Your task to perform on an android device: toggle location history Image 0: 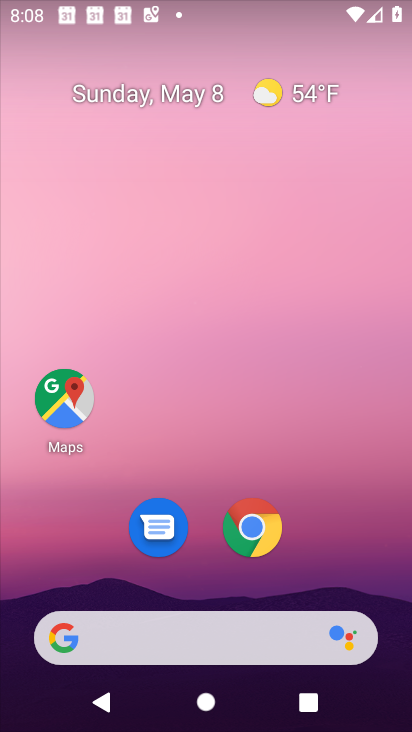
Step 0: drag from (325, 576) to (329, 46)
Your task to perform on an android device: toggle location history Image 1: 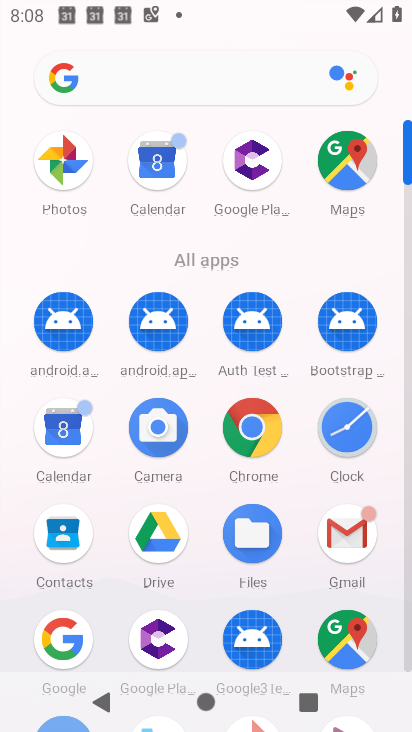
Step 1: drag from (297, 619) to (272, 386)
Your task to perform on an android device: toggle location history Image 2: 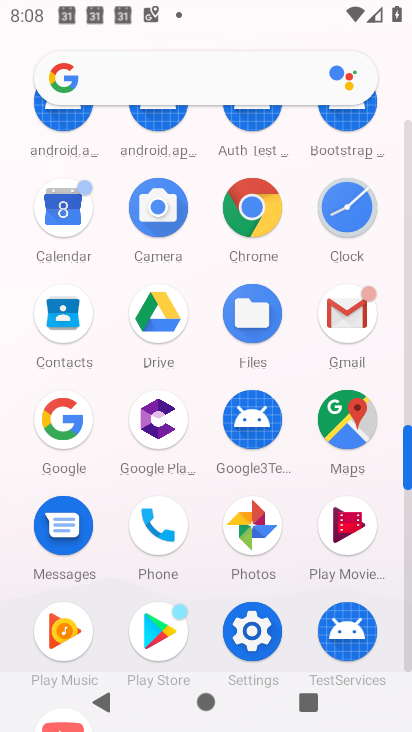
Step 2: click (242, 642)
Your task to perform on an android device: toggle location history Image 3: 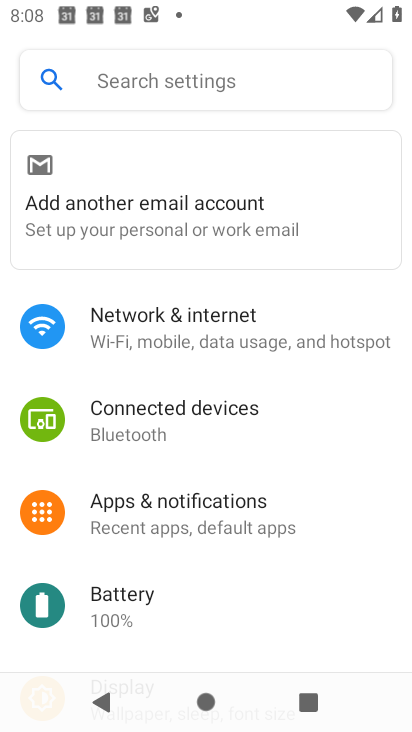
Step 3: drag from (196, 615) to (192, 458)
Your task to perform on an android device: toggle location history Image 4: 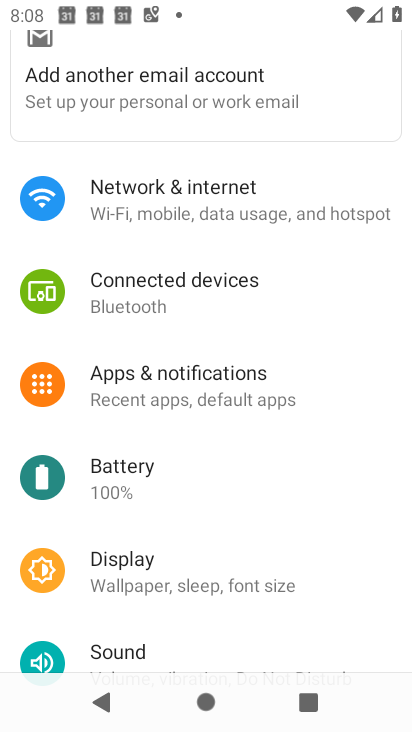
Step 4: drag from (176, 594) to (158, 386)
Your task to perform on an android device: toggle location history Image 5: 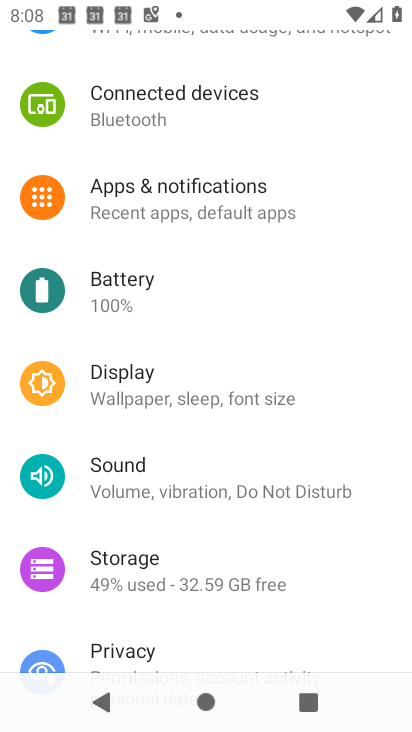
Step 5: drag from (161, 595) to (137, 445)
Your task to perform on an android device: toggle location history Image 6: 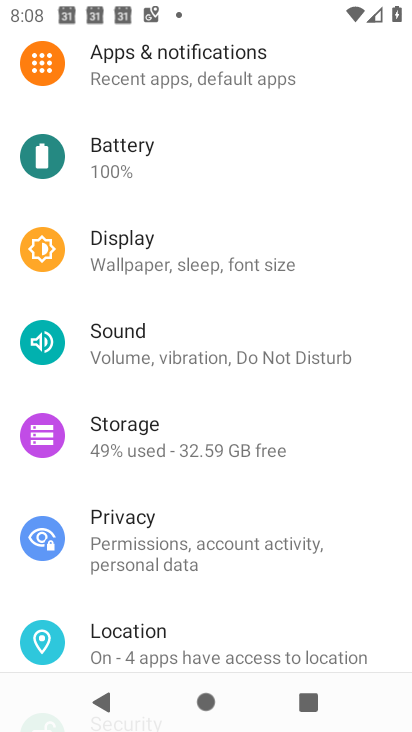
Step 6: click (185, 648)
Your task to perform on an android device: toggle location history Image 7: 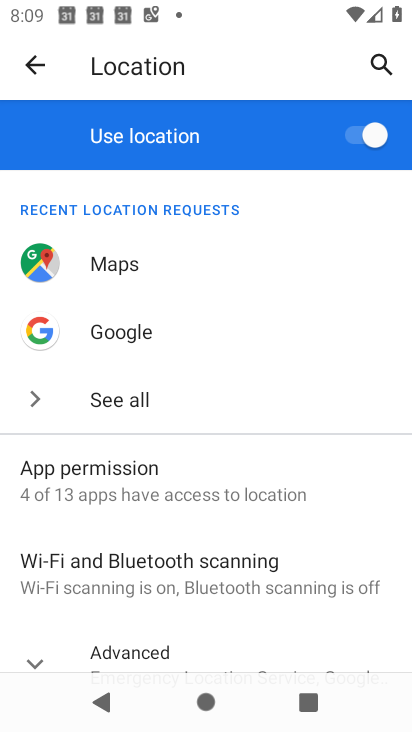
Step 7: drag from (161, 639) to (161, 362)
Your task to perform on an android device: toggle location history Image 8: 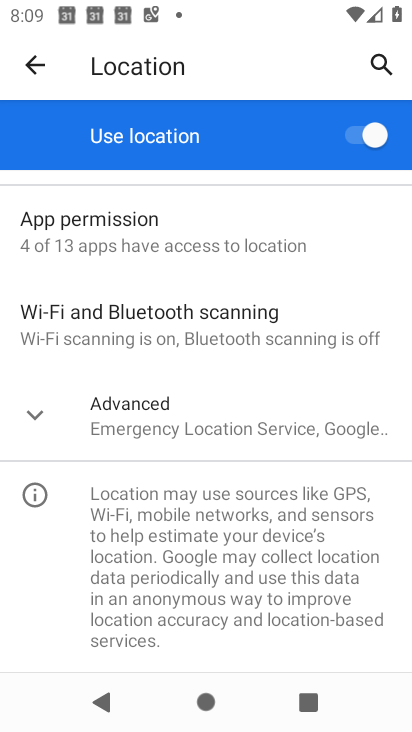
Step 8: click (188, 414)
Your task to perform on an android device: toggle location history Image 9: 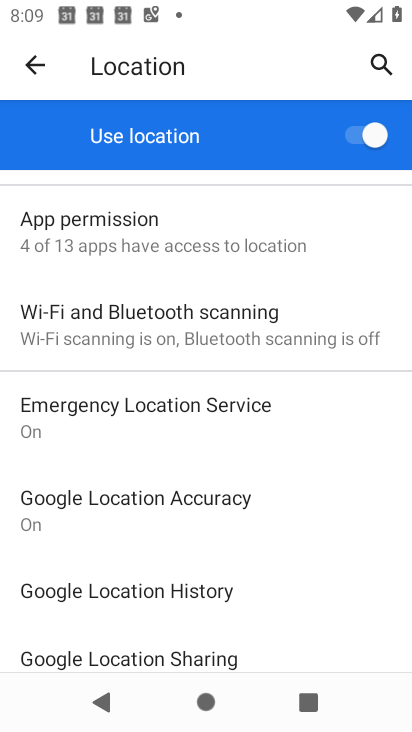
Step 9: click (212, 584)
Your task to perform on an android device: toggle location history Image 10: 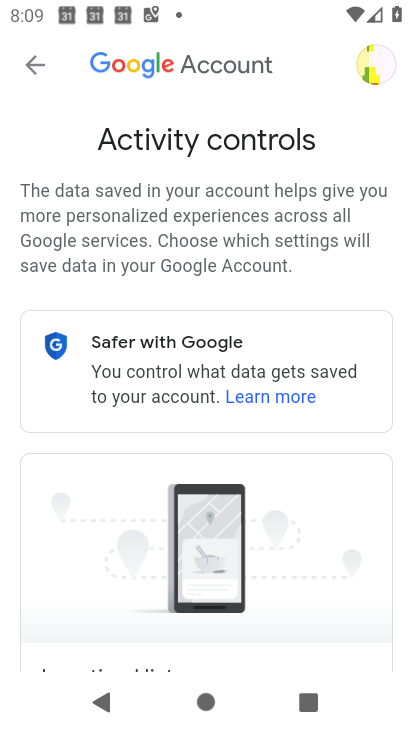
Step 10: drag from (201, 535) to (183, 244)
Your task to perform on an android device: toggle location history Image 11: 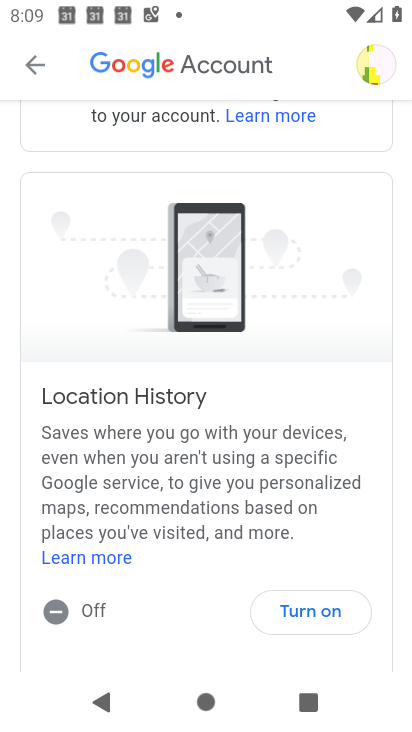
Step 11: click (299, 609)
Your task to perform on an android device: toggle location history Image 12: 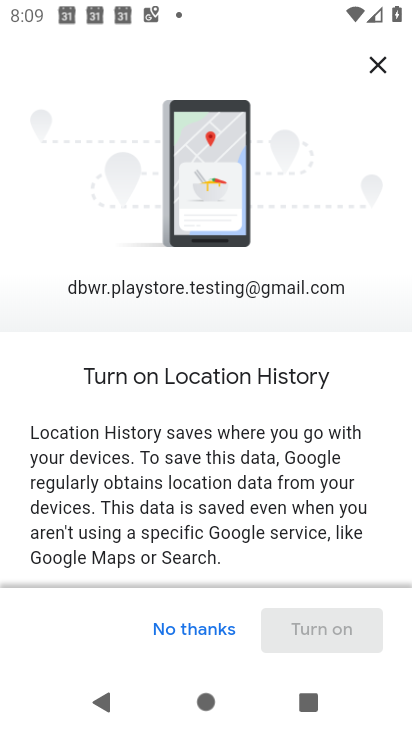
Step 12: drag from (284, 564) to (259, 354)
Your task to perform on an android device: toggle location history Image 13: 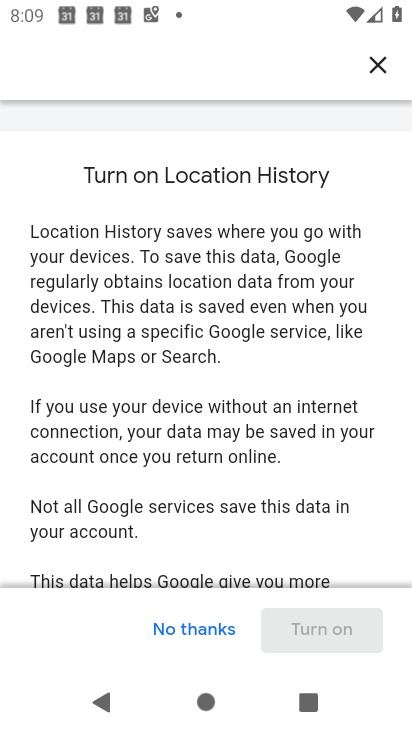
Step 13: drag from (258, 543) to (221, 266)
Your task to perform on an android device: toggle location history Image 14: 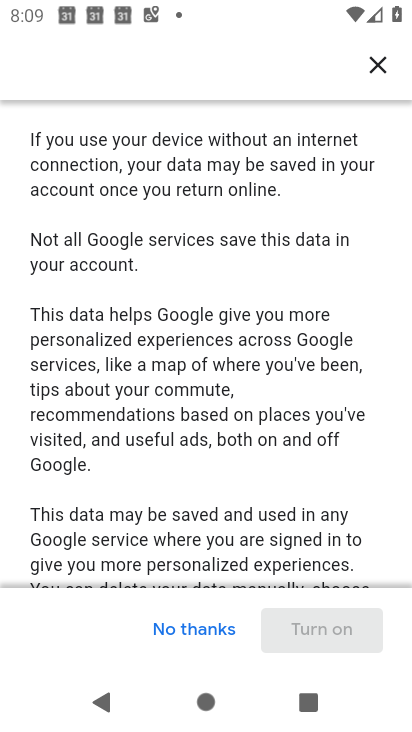
Step 14: drag from (278, 549) to (243, 339)
Your task to perform on an android device: toggle location history Image 15: 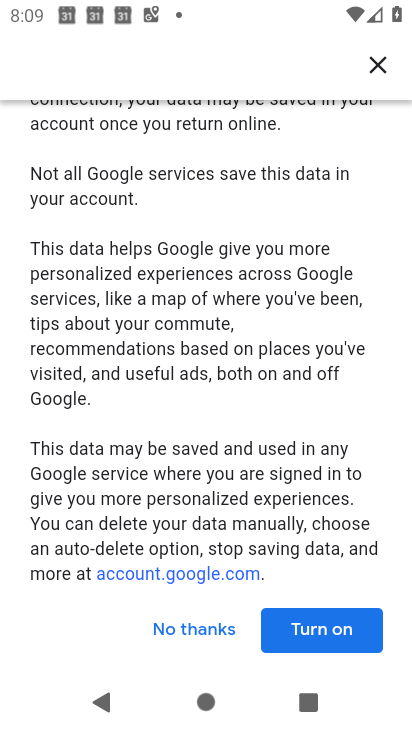
Step 15: click (317, 621)
Your task to perform on an android device: toggle location history Image 16: 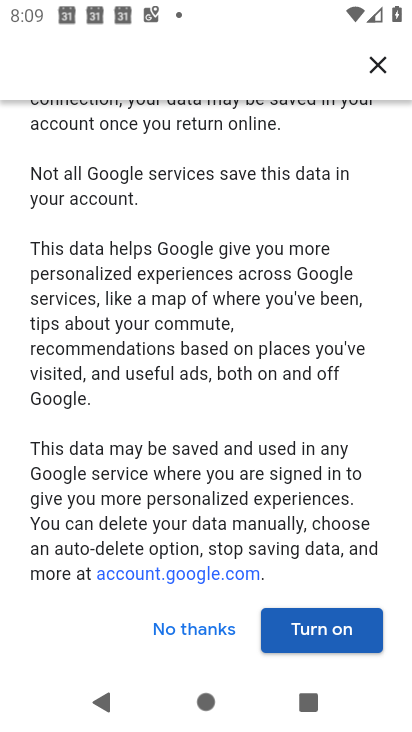
Step 16: click (317, 621)
Your task to perform on an android device: toggle location history Image 17: 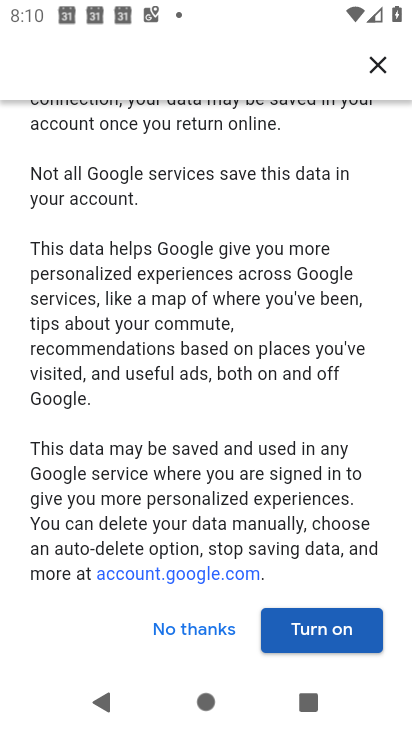
Step 17: click (317, 621)
Your task to perform on an android device: toggle location history Image 18: 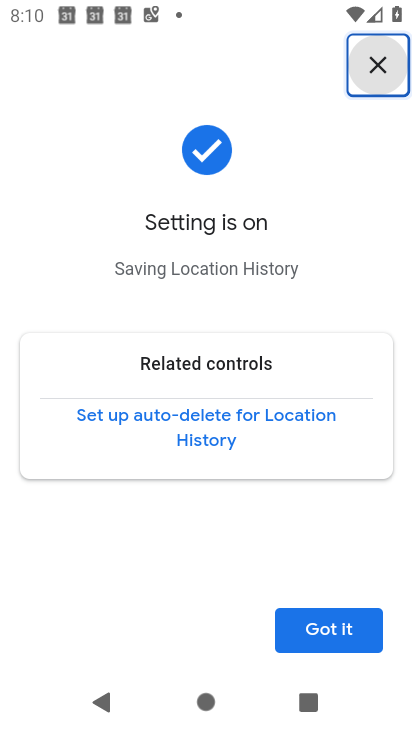
Step 18: click (317, 631)
Your task to perform on an android device: toggle location history Image 19: 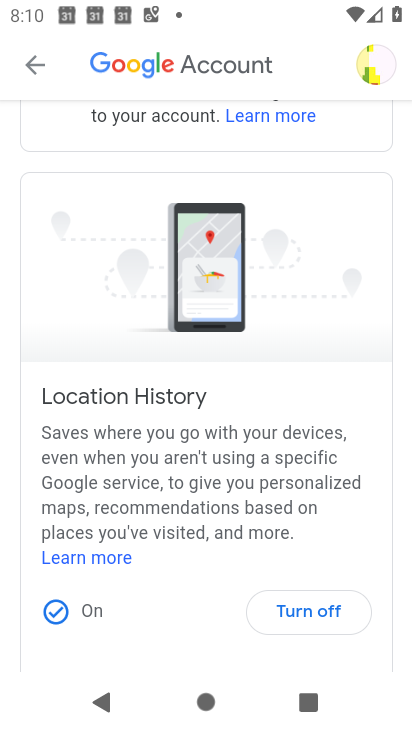
Step 19: task complete